Your task to perform on an android device: turn on the 12-hour format for clock Image 0: 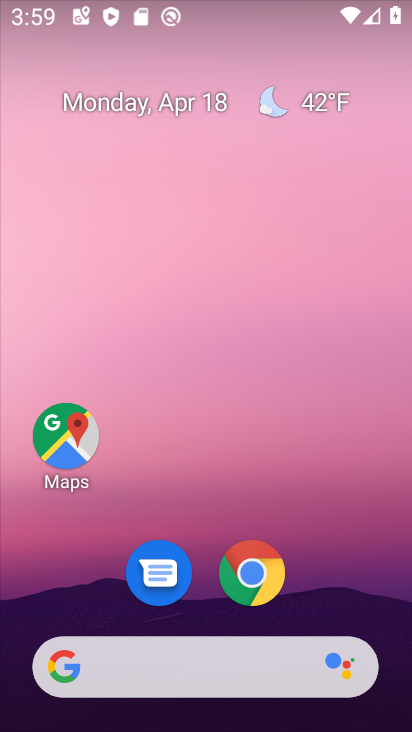
Step 0: drag from (173, 637) to (206, 190)
Your task to perform on an android device: turn on the 12-hour format for clock Image 1: 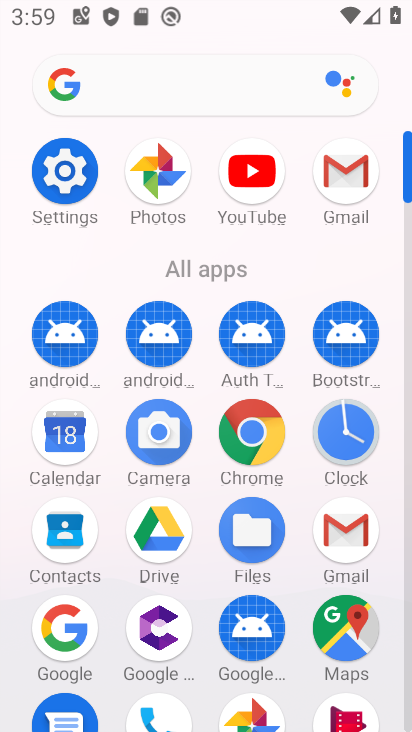
Step 1: click (360, 423)
Your task to perform on an android device: turn on the 12-hour format for clock Image 2: 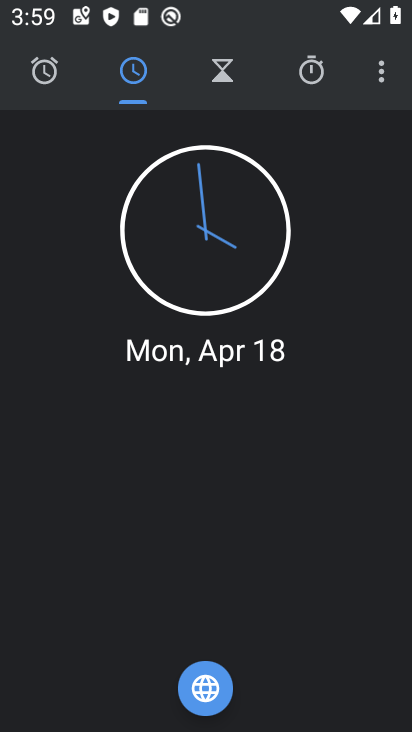
Step 2: click (381, 72)
Your task to perform on an android device: turn on the 12-hour format for clock Image 3: 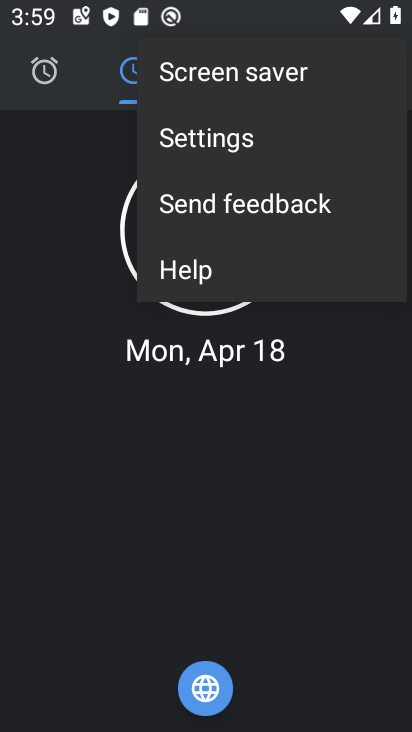
Step 3: click (195, 147)
Your task to perform on an android device: turn on the 12-hour format for clock Image 4: 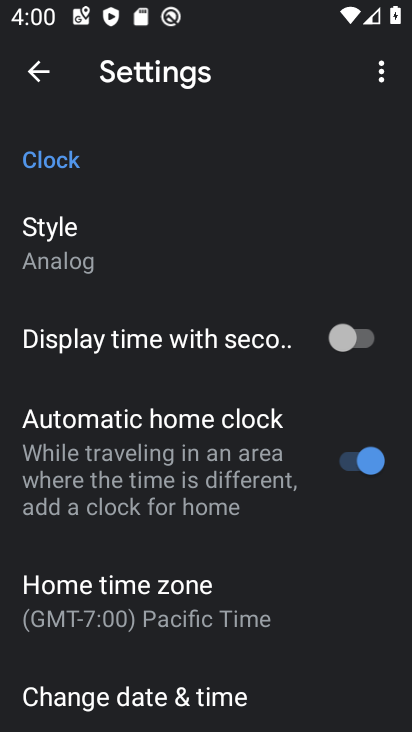
Step 4: click (124, 694)
Your task to perform on an android device: turn on the 12-hour format for clock Image 5: 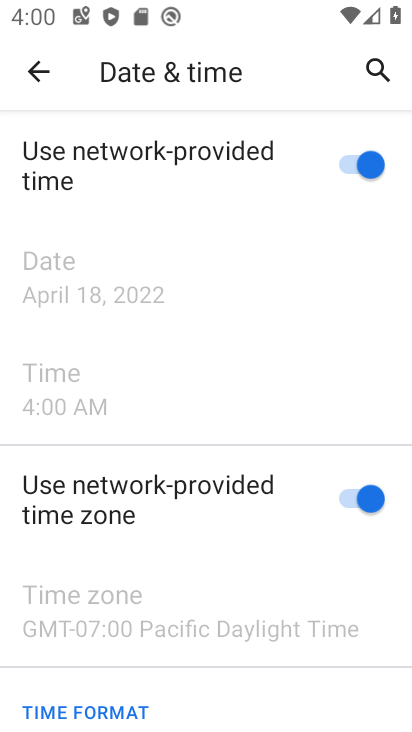
Step 5: task complete